Your task to perform on an android device: turn off location Image 0: 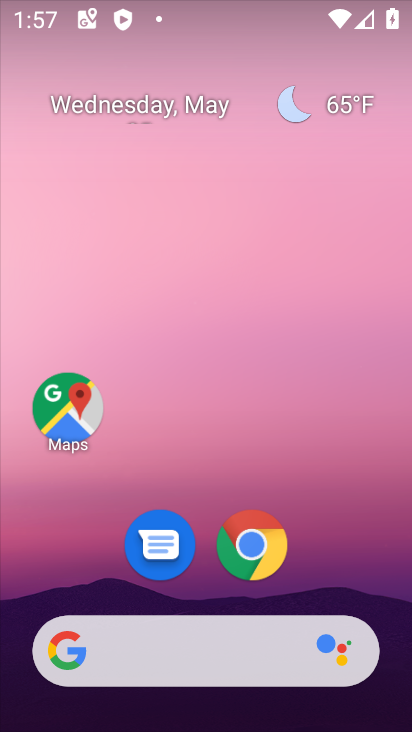
Step 0: drag from (352, 493) to (201, 34)
Your task to perform on an android device: turn off location Image 1: 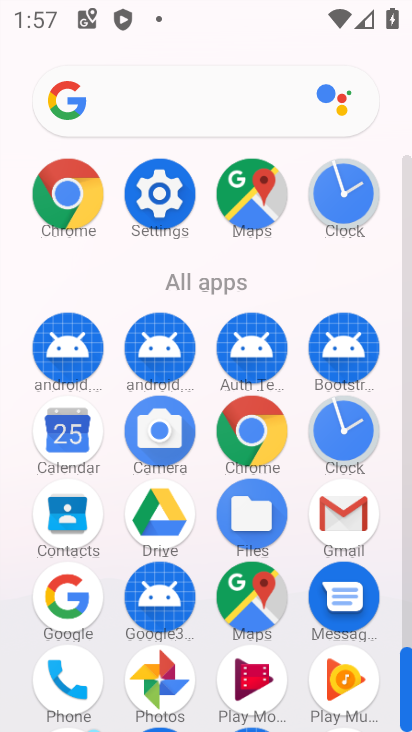
Step 1: click (177, 161)
Your task to perform on an android device: turn off location Image 2: 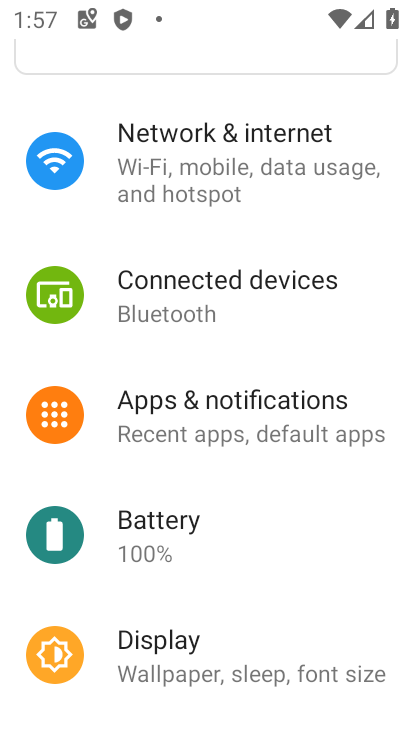
Step 2: drag from (317, 394) to (281, 64)
Your task to perform on an android device: turn off location Image 3: 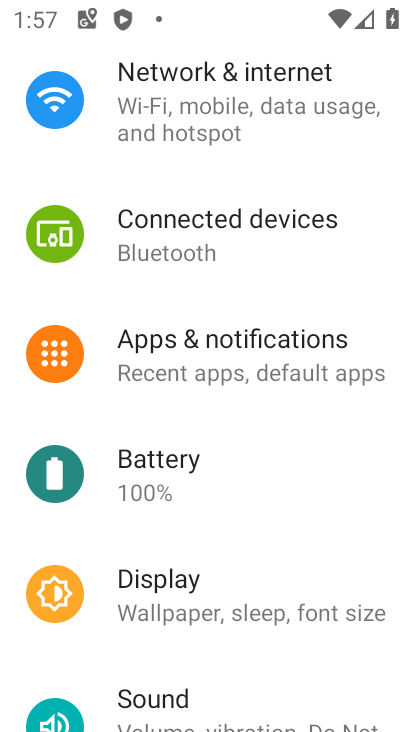
Step 3: drag from (288, 538) to (270, 25)
Your task to perform on an android device: turn off location Image 4: 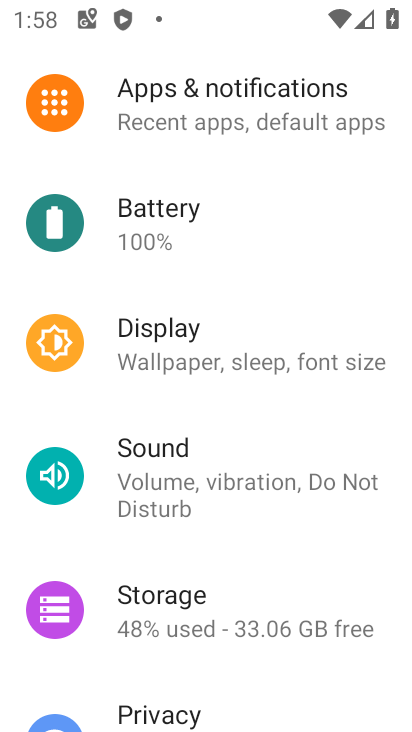
Step 4: drag from (274, 501) to (255, 1)
Your task to perform on an android device: turn off location Image 5: 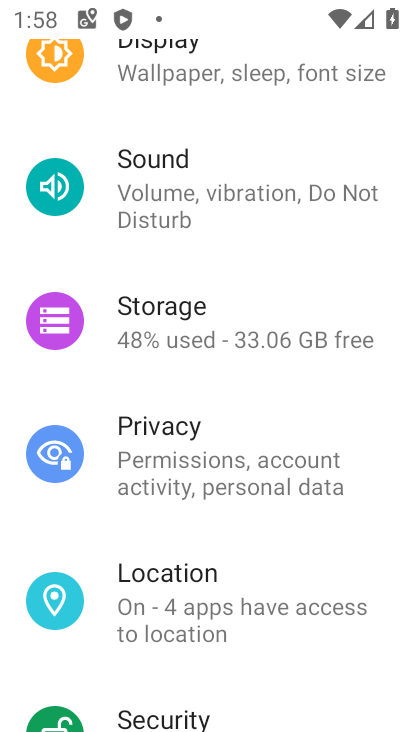
Step 5: click (215, 565)
Your task to perform on an android device: turn off location Image 6: 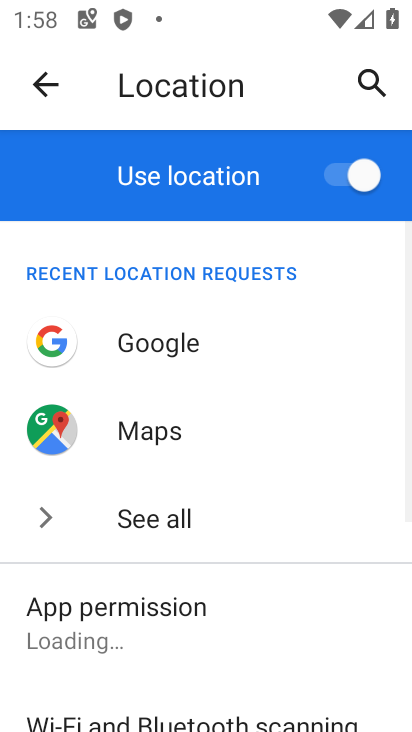
Step 6: click (358, 174)
Your task to perform on an android device: turn off location Image 7: 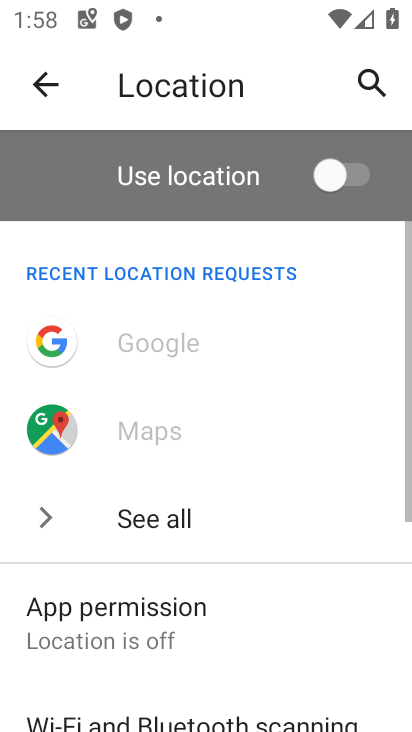
Step 7: task complete